Your task to perform on an android device: toggle notification dots Image 0: 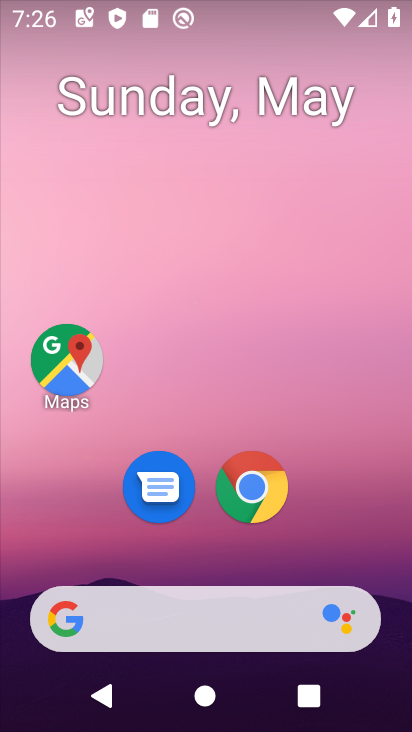
Step 0: drag from (383, 559) to (362, 166)
Your task to perform on an android device: toggle notification dots Image 1: 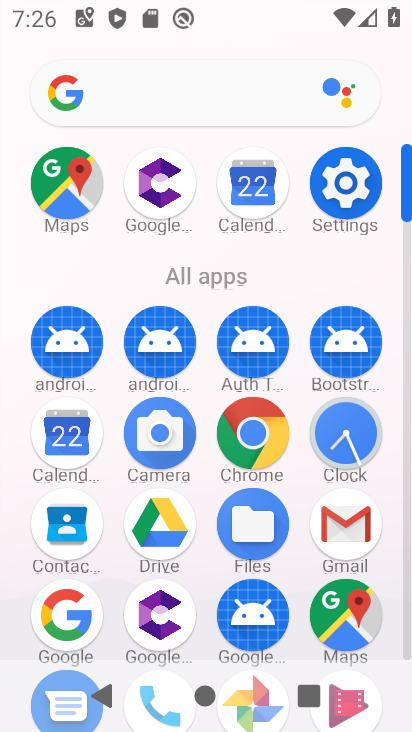
Step 1: click (358, 199)
Your task to perform on an android device: toggle notification dots Image 2: 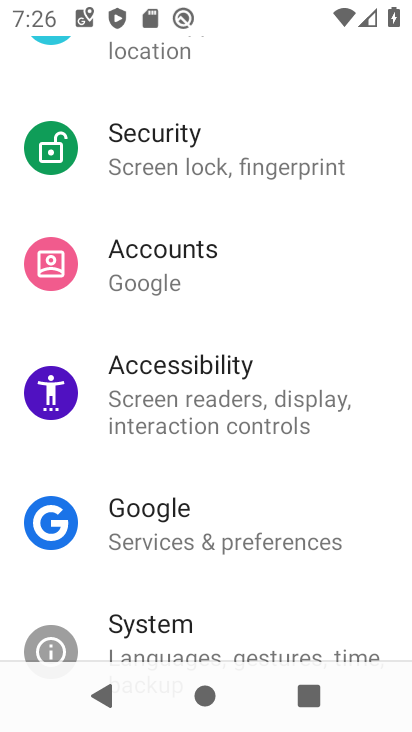
Step 2: drag from (368, 579) to (374, 499)
Your task to perform on an android device: toggle notification dots Image 3: 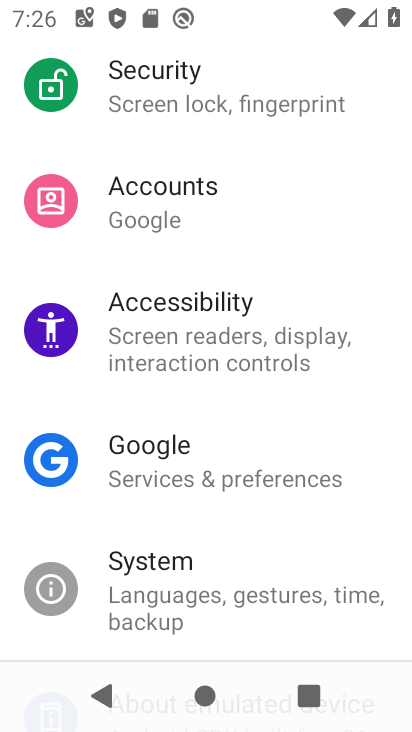
Step 3: drag from (374, 621) to (364, 498)
Your task to perform on an android device: toggle notification dots Image 4: 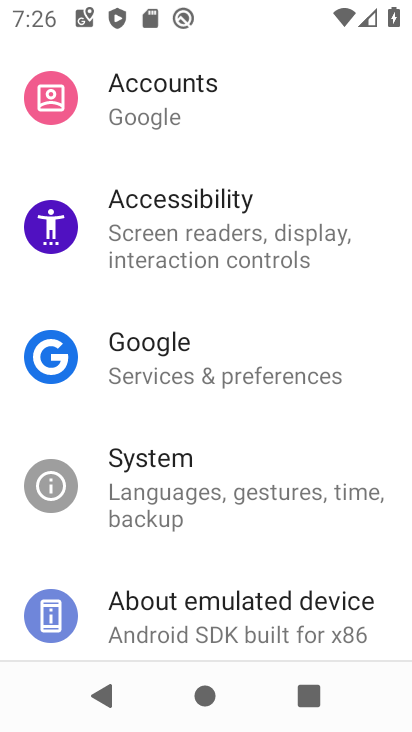
Step 4: drag from (376, 641) to (378, 495)
Your task to perform on an android device: toggle notification dots Image 5: 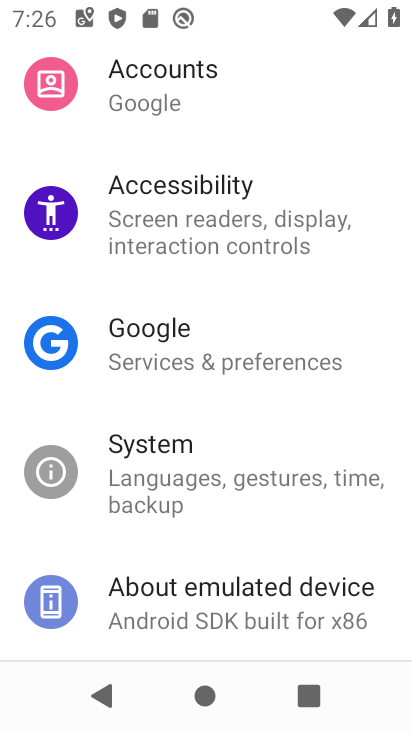
Step 5: drag from (376, 383) to (374, 467)
Your task to perform on an android device: toggle notification dots Image 6: 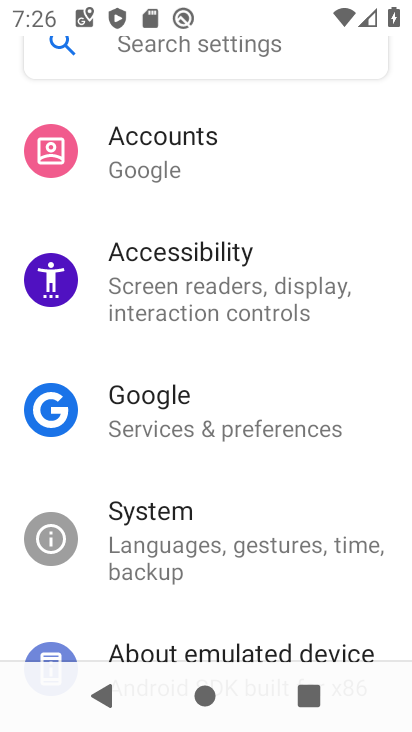
Step 6: drag from (372, 354) to (381, 437)
Your task to perform on an android device: toggle notification dots Image 7: 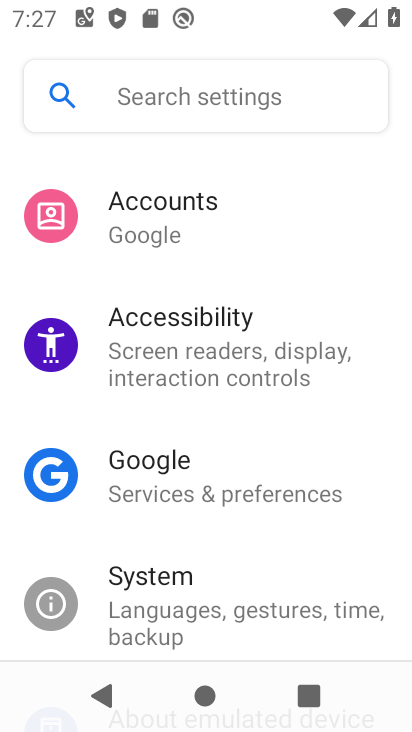
Step 7: drag from (374, 340) to (369, 405)
Your task to perform on an android device: toggle notification dots Image 8: 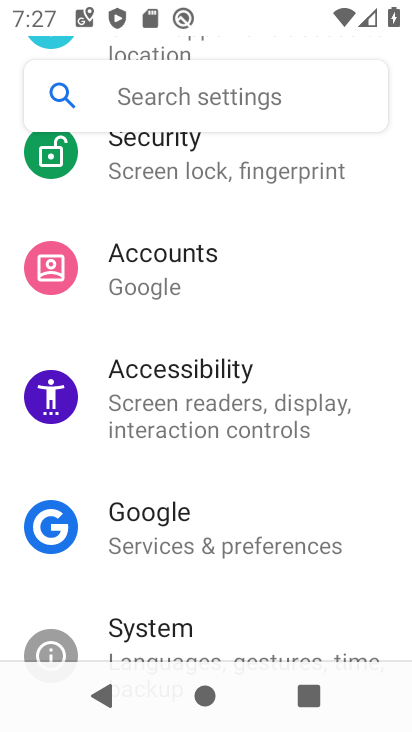
Step 8: drag from (365, 329) to (362, 389)
Your task to perform on an android device: toggle notification dots Image 9: 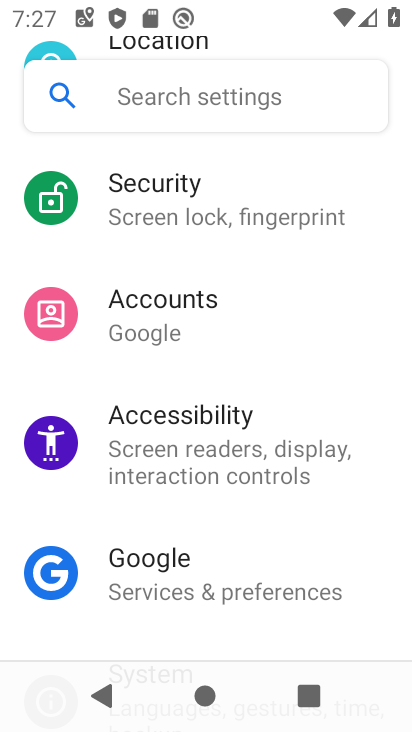
Step 9: drag from (362, 332) to (359, 415)
Your task to perform on an android device: toggle notification dots Image 10: 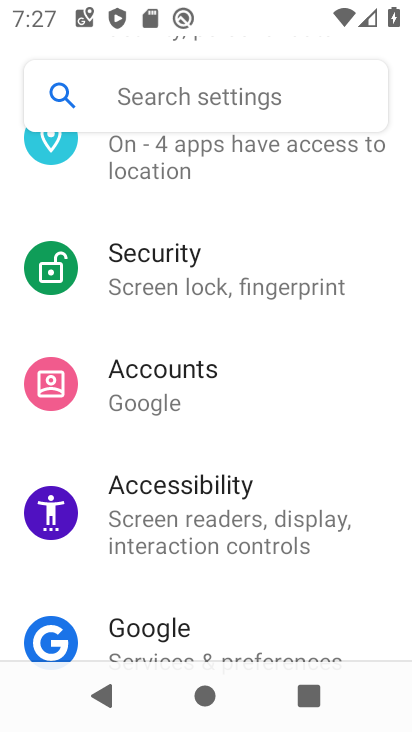
Step 10: drag from (360, 339) to (365, 398)
Your task to perform on an android device: toggle notification dots Image 11: 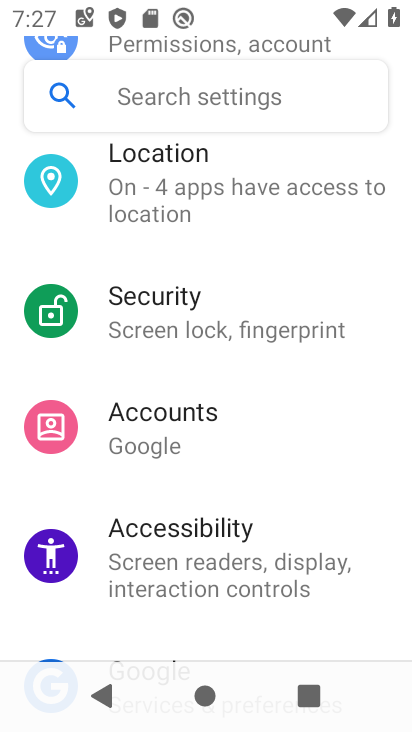
Step 11: drag from (362, 324) to (361, 395)
Your task to perform on an android device: toggle notification dots Image 12: 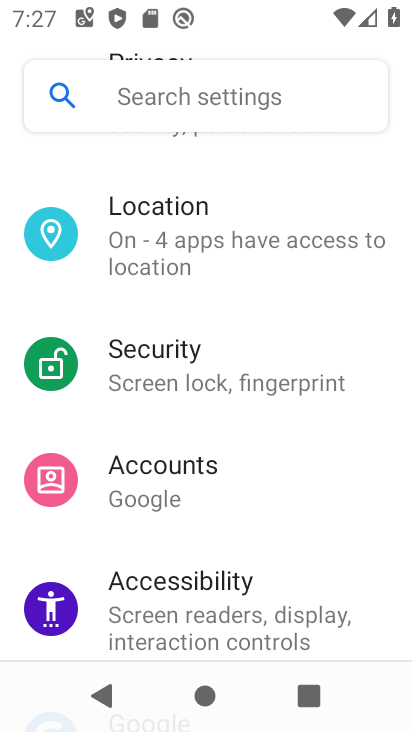
Step 12: drag from (371, 323) to (378, 403)
Your task to perform on an android device: toggle notification dots Image 13: 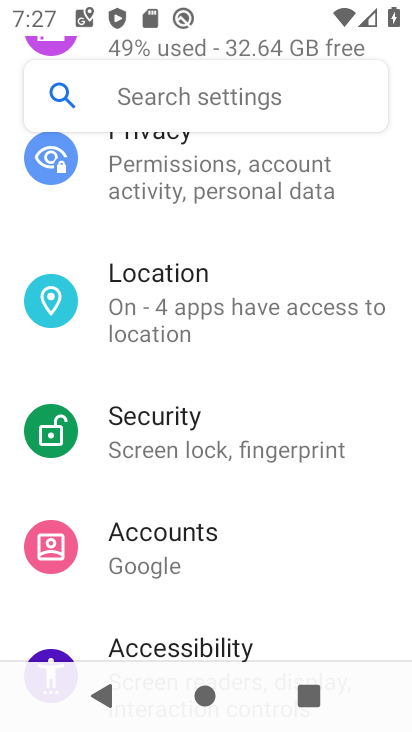
Step 13: drag from (383, 286) to (384, 357)
Your task to perform on an android device: toggle notification dots Image 14: 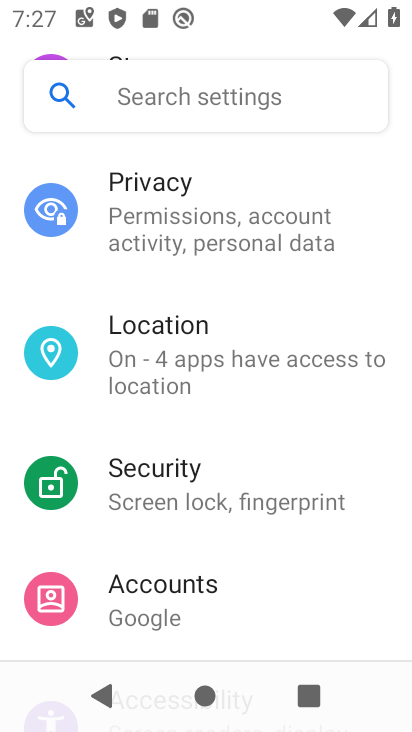
Step 14: drag from (388, 313) to (392, 387)
Your task to perform on an android device: toggle notification dots Image 15: 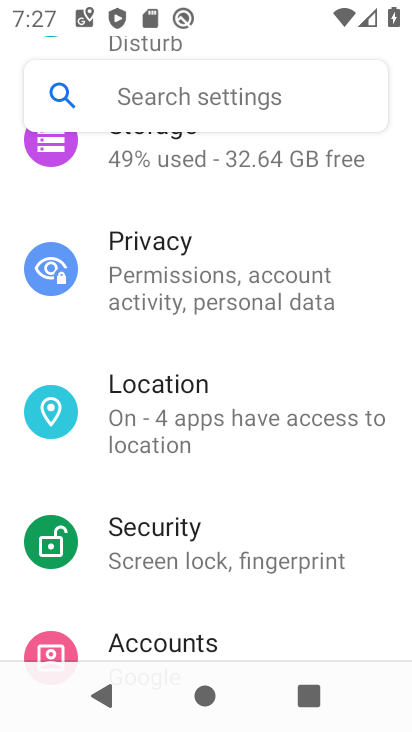
Step 15: drag from (383, 289) to (386, 369)
Your task to perform on an android device: toggle notification dots Image 16: 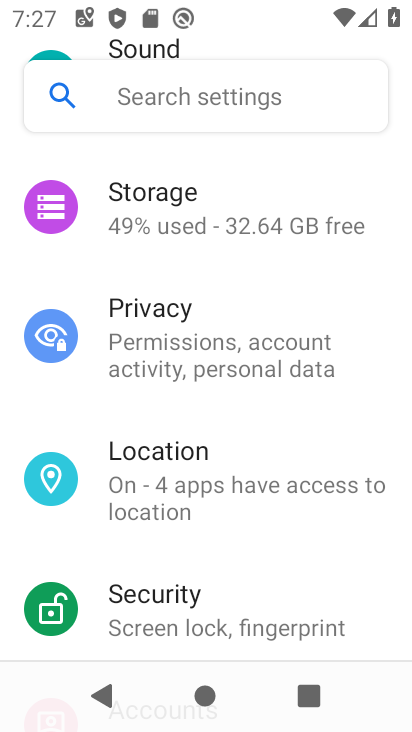
Step 16: drag from (380, 294) to (381, 362)
Your task to perform on an android device: toggle notification dots Image 17: 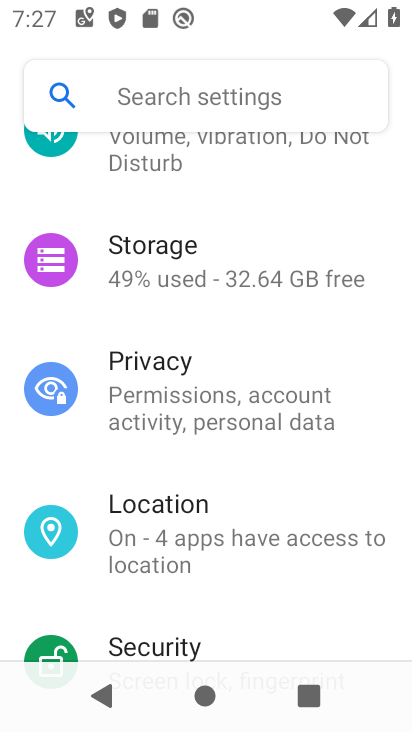
Step 17: drag from (379, 306) to (373, 379)
Your task to perform on an android device: toggle notification dots Image 18: 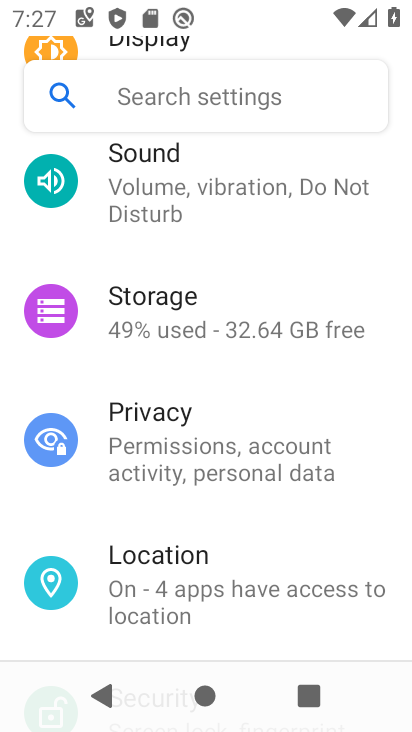
Step 18: drag from (372, 311) to (368, 416)
Your task to perform on an android device: toggle notification dots Image 19: 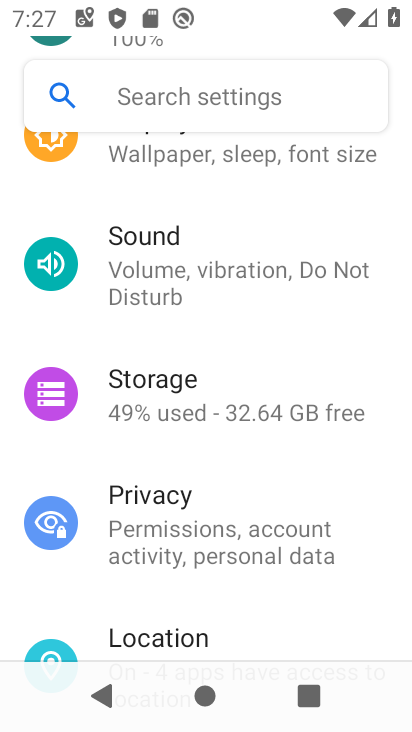
Step 19: drag from (378, 355) to (381, 439)
Your task to perform on an android device: toggle notification dots Image 20: 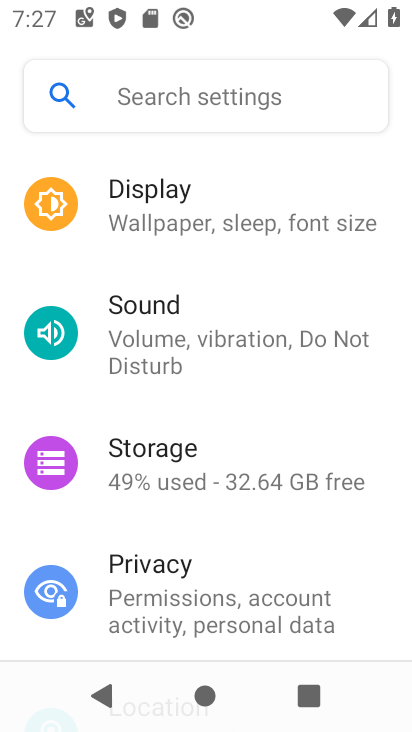
Step 20: drag from (384, 361) to (383, 440)
Your task to perform on an android device: toggle notification dots Image 21: 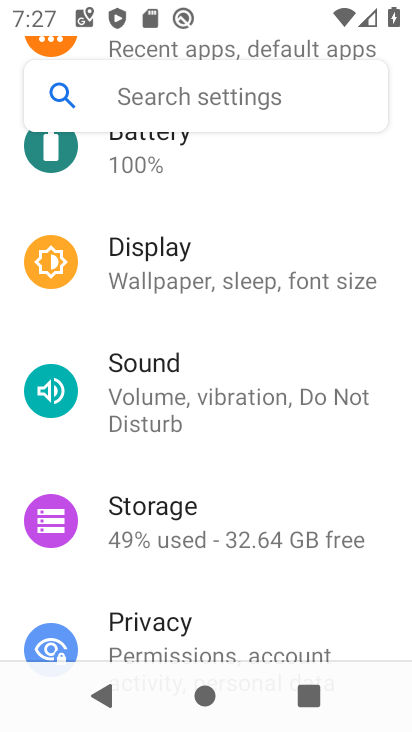
Step 21: drag from (387, 357) to (388, 434)
Your task to perform on an android device: toggle notification dots Image 22: 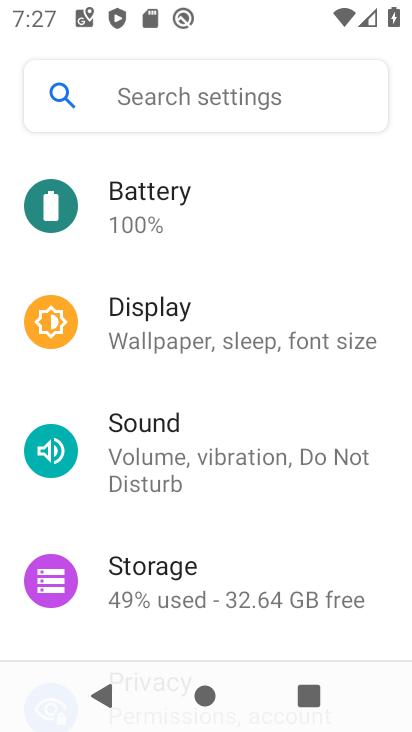
Step 22: drag from (383, 370) to (383, 437)
Your task to perform on an android device: toggle notification dots Image 23: 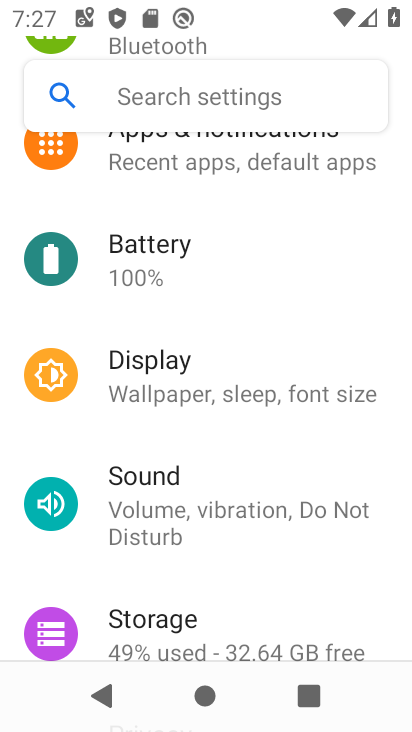
Step 23: drag from (388, 367) to (387, 439)
Your task to perform on an android device: toggle notification dots Image 24: 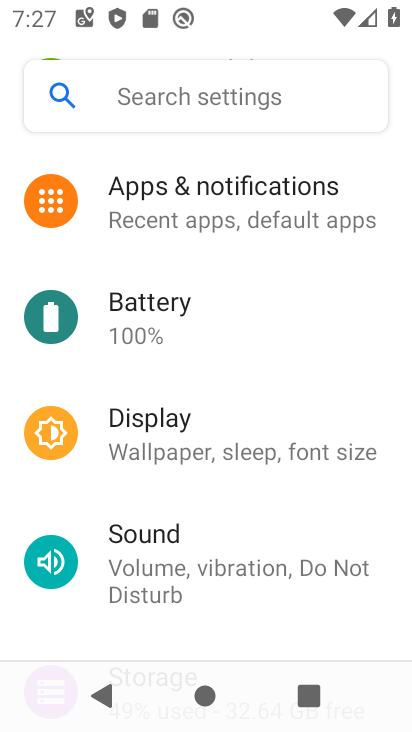
Step 24: drag from (380, 340) to (379, 427)
Your task to perform on an android device: toggle notification dots Image 25: 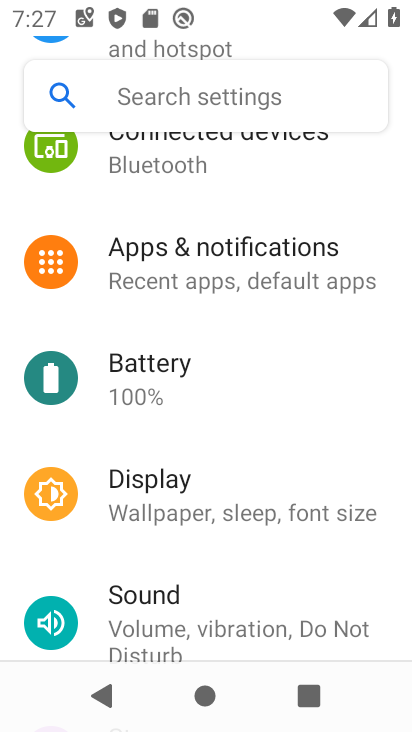
Step 25: drag from (378, 344) to (377, 421)
Your task to perform on an android device: toggle notification dots Image 26: 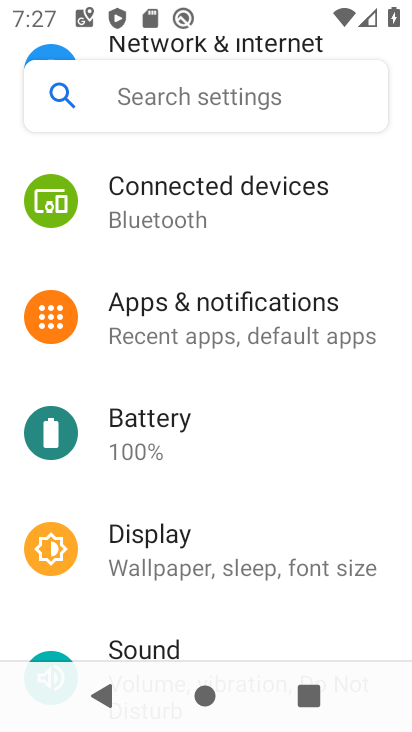
Step 26: drag from (386, 310) to (388, 385)
Your task to perform on an android device: toggle notification dots Image 27: 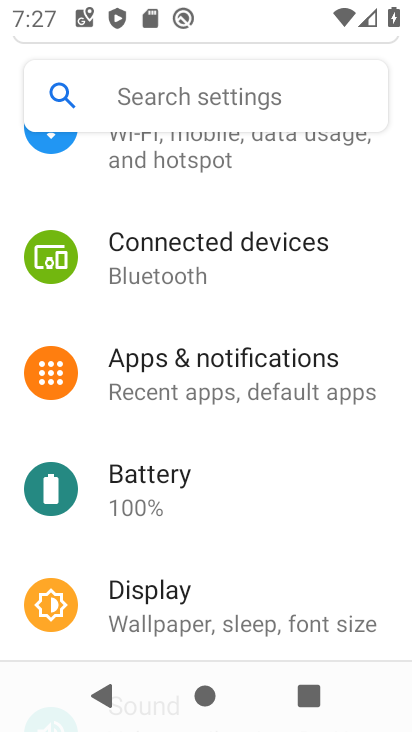
Step 27: drag from (378, 319) to (379, 400)
Your task to perform on an android device: toggle notification dots Image 28: 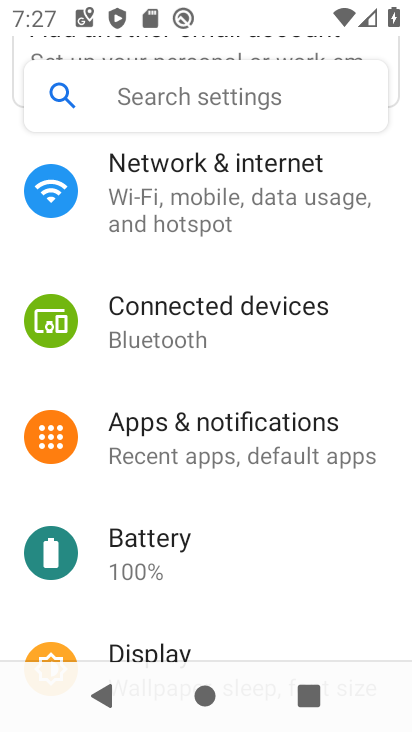
Step 28: drag from (380, 346) to (383, 412)
Your task to perform on an android device: toggle notification dots Image 29: 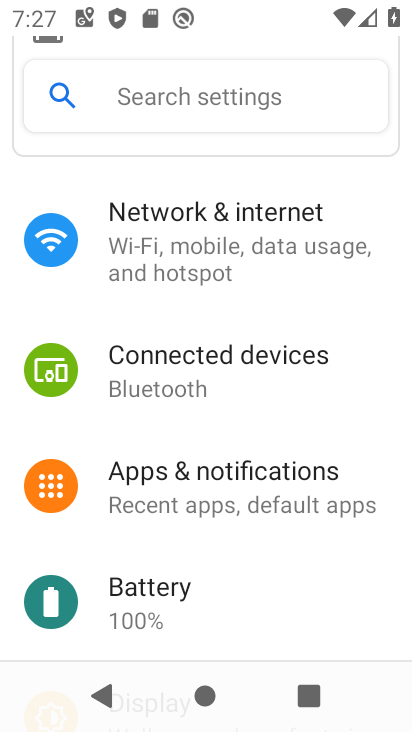
Step 29: drag from (377, 341) to (379, 424)
Your task to perform on an android device: toggle notification dots Image 30: 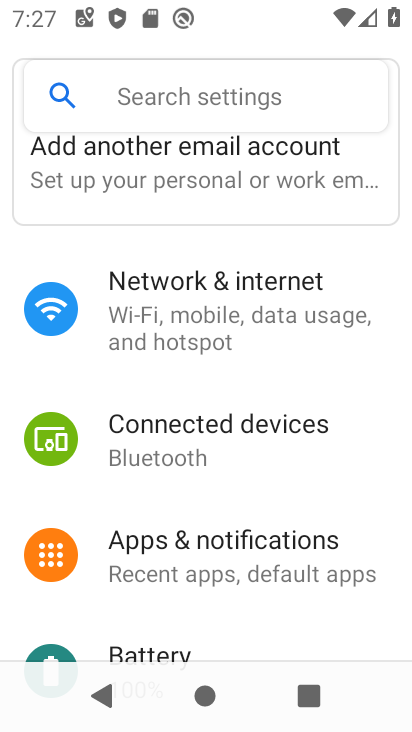
Step 30: click (321, 561)
Your task to perform on an android device: toggle notification dots Image 31: 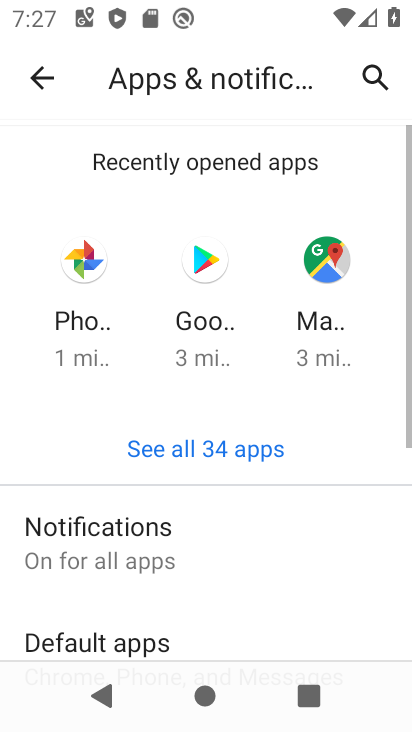
Step 31: drag from (337, 579) to (332, 446)
Your task to perform on an android device: toggle notification dots Image 32: 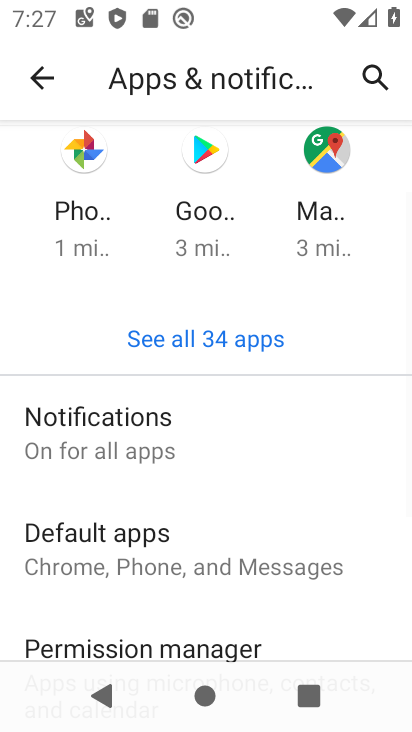
Step 32: drag from (338, 604) to (341, 497)
Your task to perform on an android device: toggle notification dots Image 33: 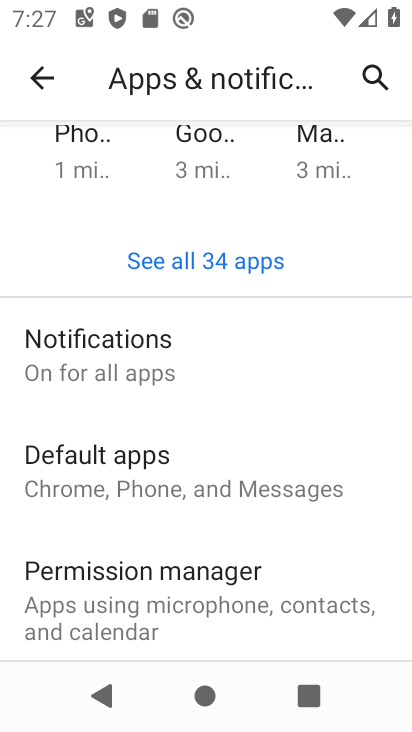
Step 33: click (122, 367)
Your task to perform on an android device: toggle notification dots Image 34: 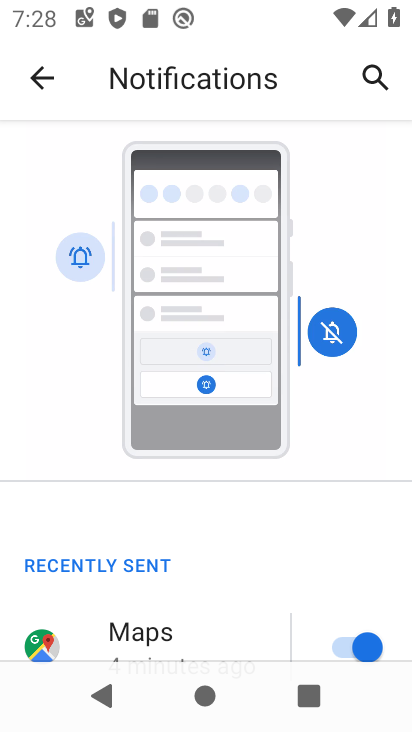
Step 34: drag from (287, 566) to (275, 459)
Your task to perform on an android device: toggle notification dots Image 35: 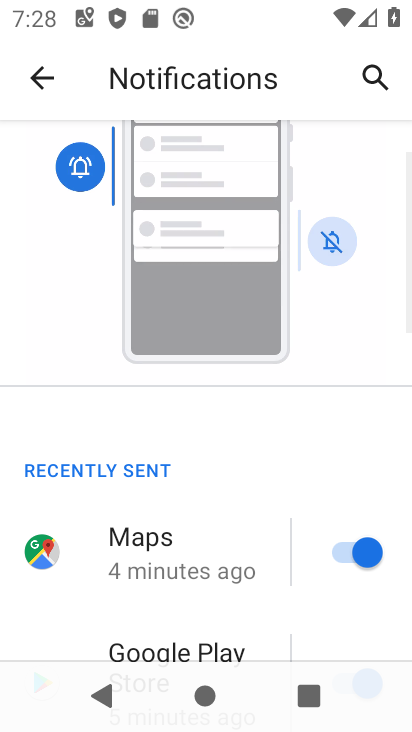
Step 35: drag from (264, 557) to (262, 467)
Your task to perform on an android device: toggle notification dots Image 36: 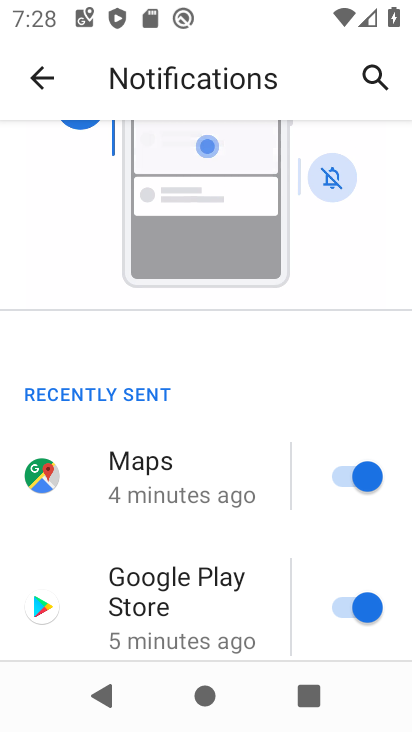
Step 36: drag from (265, 554) to (259, 443)
Your task to perform on an android device: toggle notification dots Image 37: 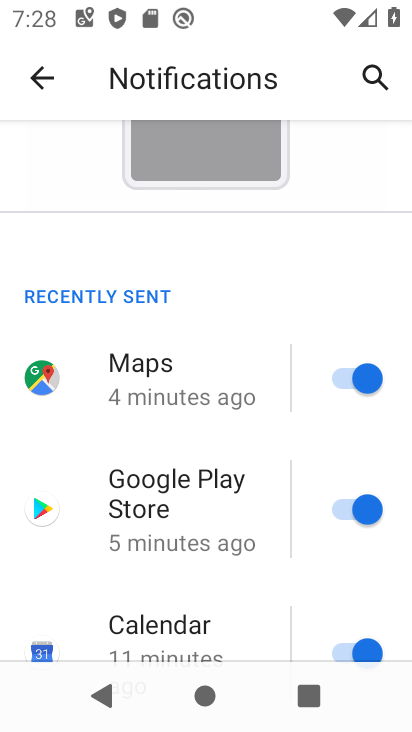
Step 37: drag from (262, 576) to (255, 471)
Your task to perform on an android device: toggle notification dots Image 38: 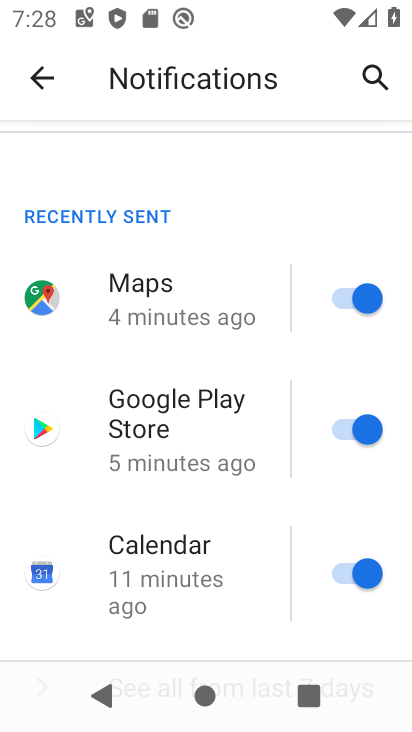
Step 38: drag from (258, 567) to (256, 468)
Your task to perform on an android device: toggle notification dots Image 39: 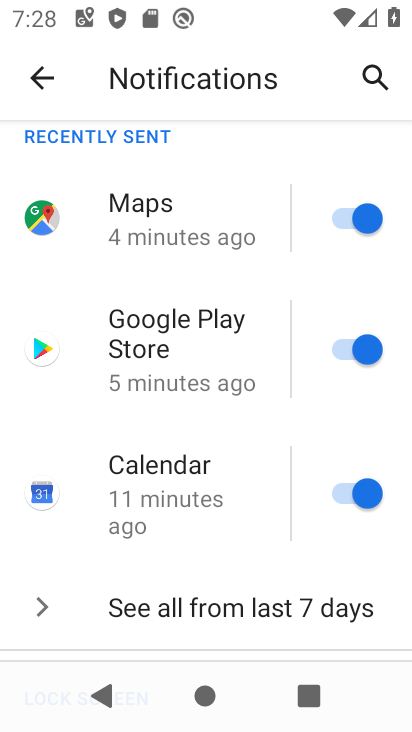
Step 39: drag from (264, 571) to (256, 481)
Your task to perform on an android device: toggle notification dots Image 40: 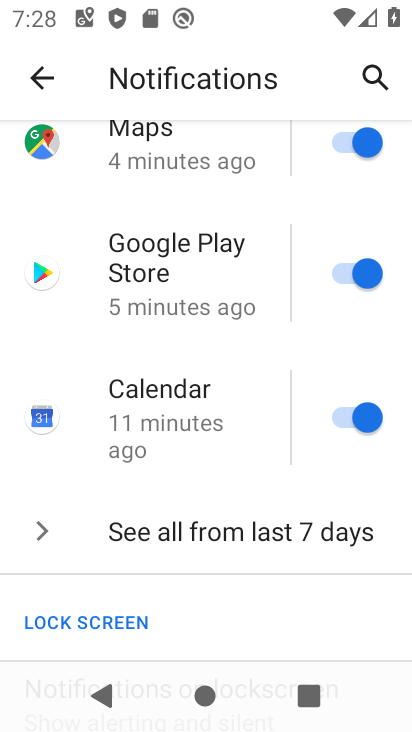
Step 40: drag from (258, 594) to (261, 498)
Your task to perform on an android device: toggle notification dots Image 41: 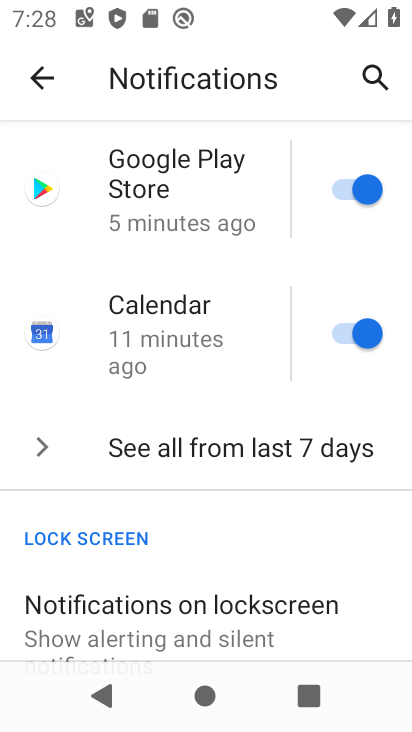
Step 41: drag from (268, 607) to (257, 466)
Your task to perform on an android device: toggle notification dots Image 42: 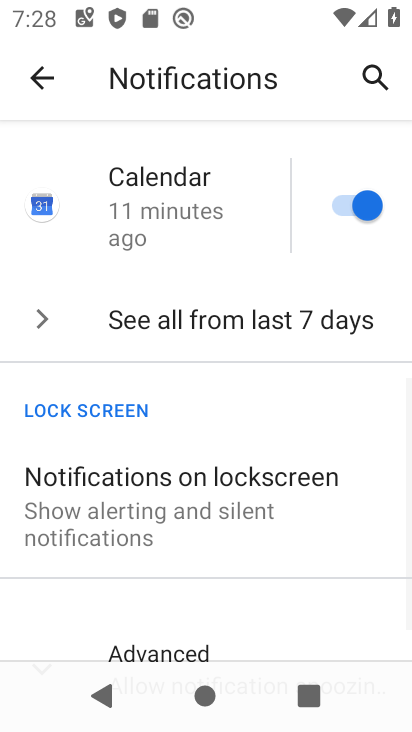
Step 42: drag from (274, 616) to (274, 493)
Your task to perform on an android device: toggle notification dots Image 43: 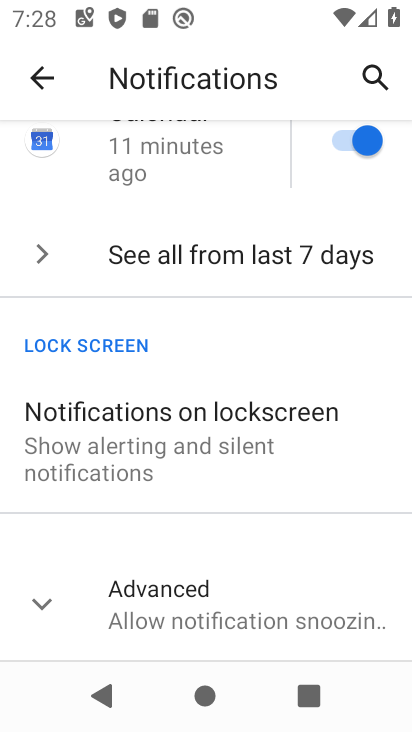
Step 43: click (255, 615)
Your task to perform on an android device: toggle notification dots Image 44: 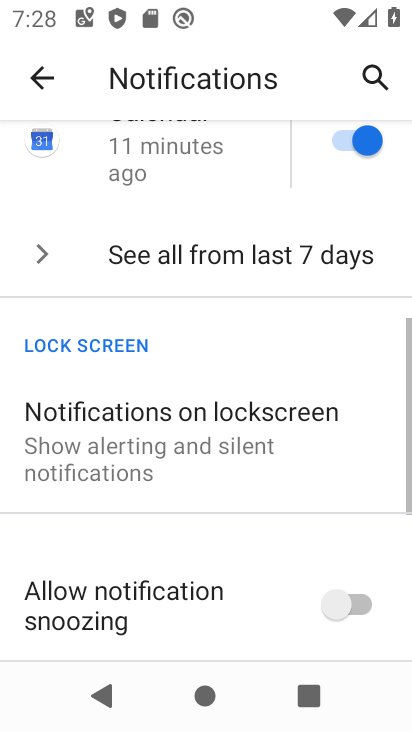
Step 44: drag from (260, 616) to (252, 499)
Your task to perform on an android device: toggle notification dots Image 45: 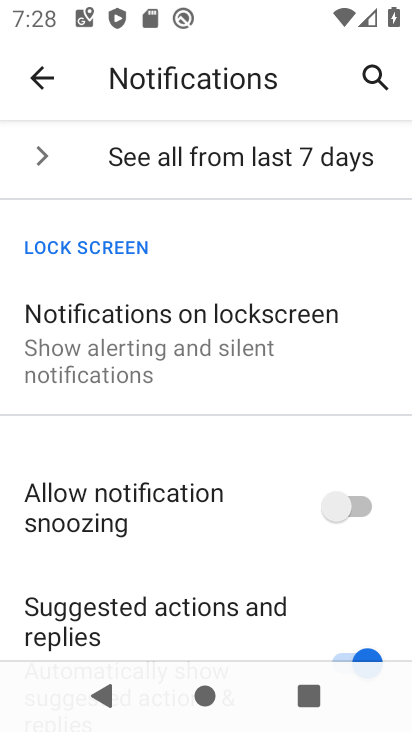
Step 45: drag from (250, 597) to (253, 478)
Your task to perform on an android device: toggle notification dots Image 46: 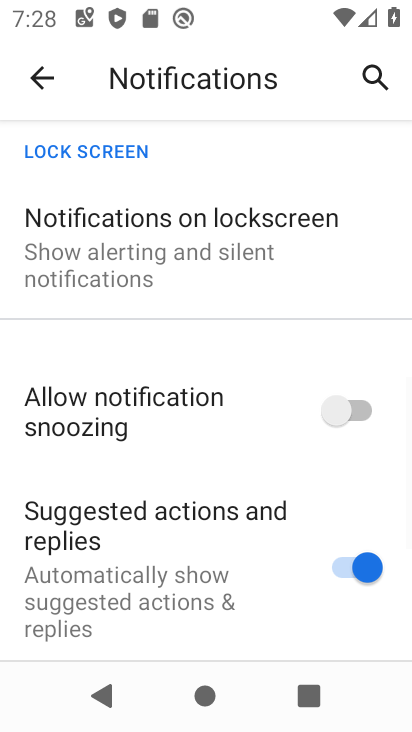
Step 46: drag from (273, 612) to (269, 496)
Your task to perform on an android device: toggle notification dots Image 47: 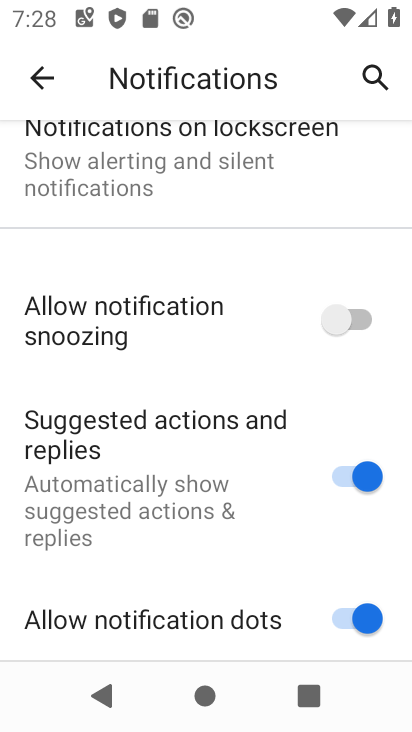
Step 47: drag from (277, 615) to (269, 483)
Your task to perform on an android device: toggle notification dots Image 48: 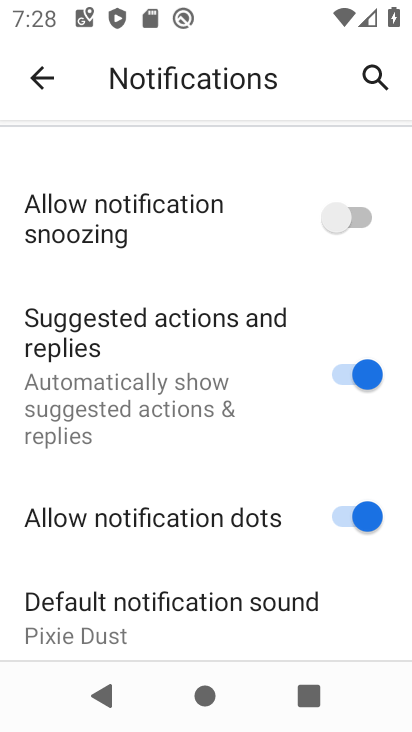
Step 48: click (347, 516)
Your task to perform on an android device: toggle notification dots Image 49: 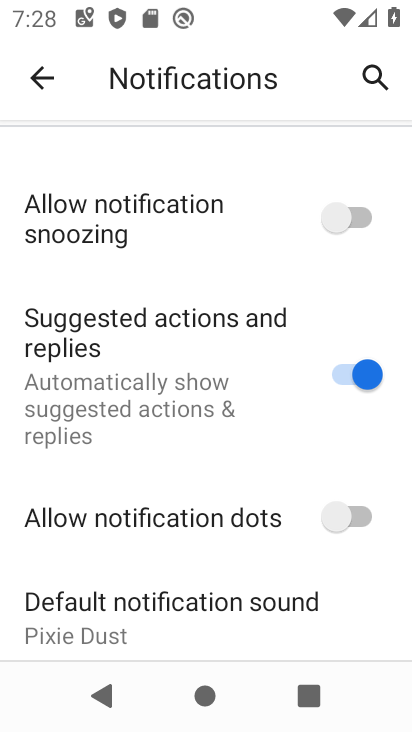
Step 49: task complete